Your task to perform on an android device: Turn off the flashlight Image 0: 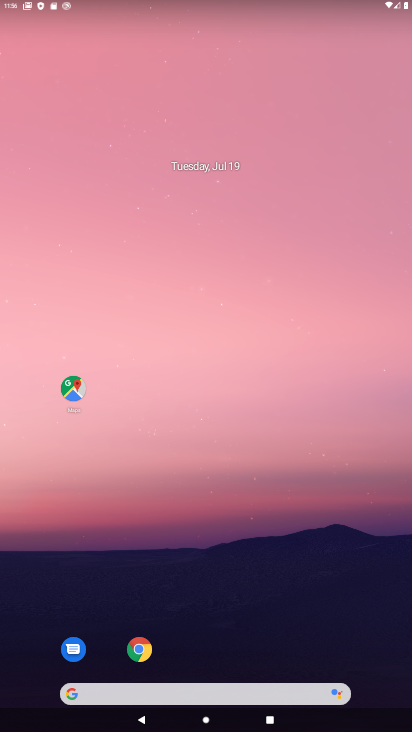
Step 0: drag from (245, 626) to (354, 23)
Your task to perform on an android device: Turn off the flashlight Image 1: 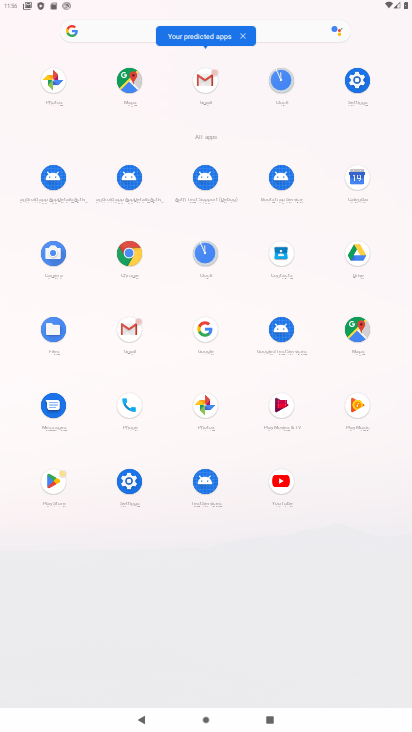
Step 1: click (355, 99)
Your task to perform on an android device: Turn off the flashlight Image 2: 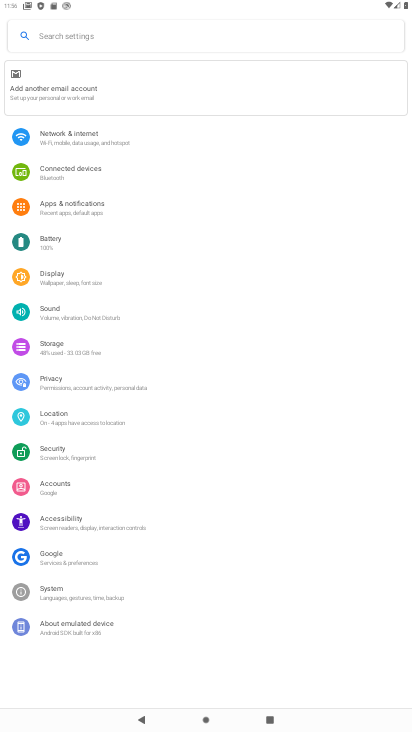
Step 2: click (70, 276)
Your task to perform on an android device: Turn off the flashlight Image 3: 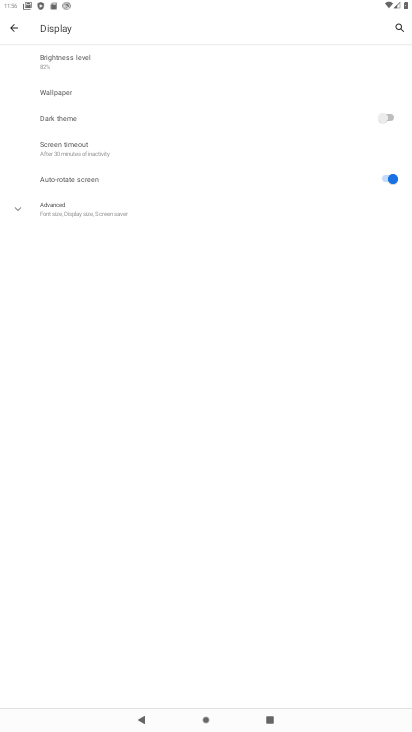
Step 3: click (86, 210)
Your task to perform on an android device: Turn off the flashlight Image 4: 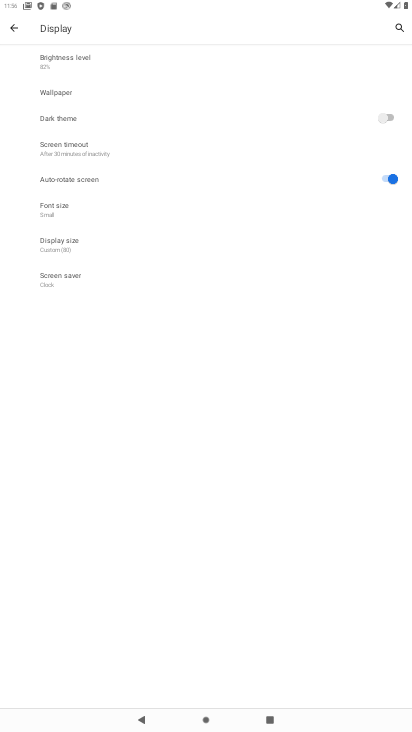
Step 4: click (83, 244)
Your task to perform on an android device: Turn off the flashlight Image 5: 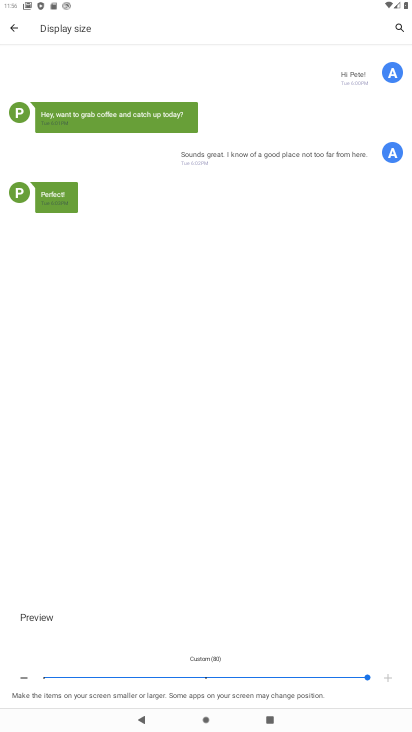
Step 5: click (204, 673)
Your task to perform on an android device: Turn off the flashlight Image 6: 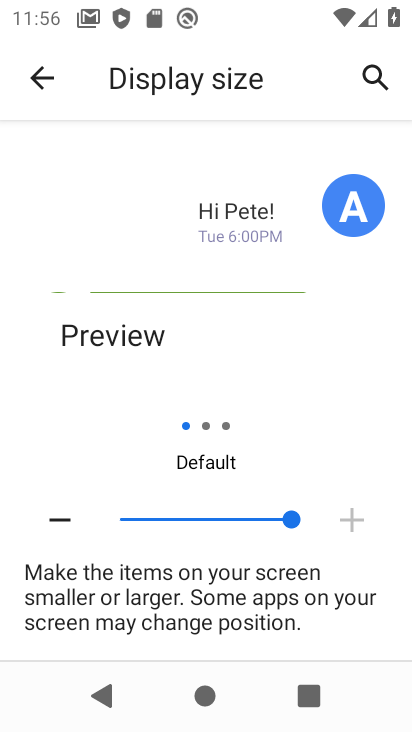
Step 6: click (34, 61)
Your task to perform on an android device: Turn off the flashlight Image 7: 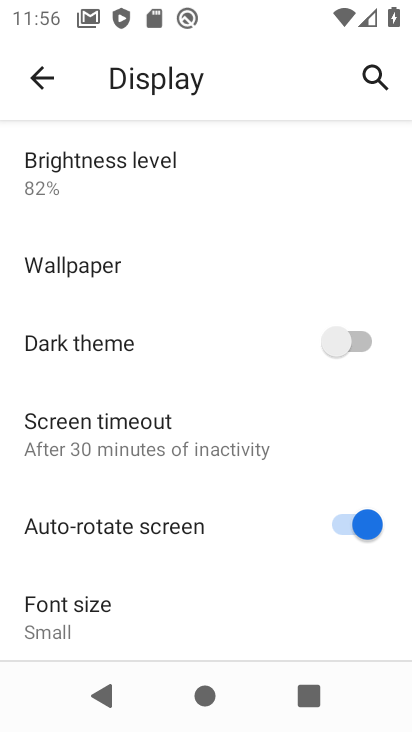
Step 7: click (32, 92)
Your task to perform on an android device: Turn off the flashlight Image 8: 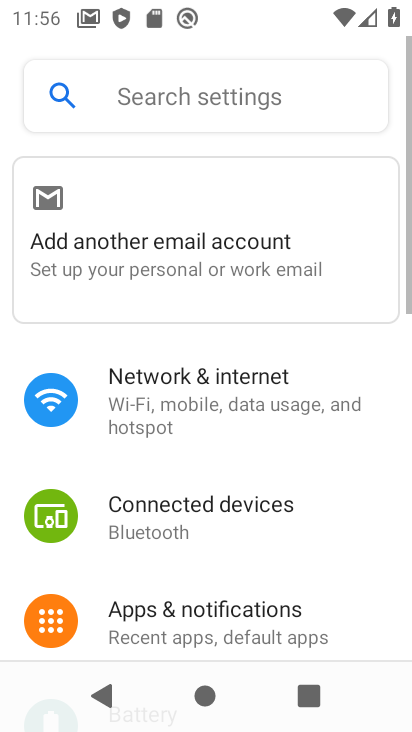
Step 8: click (201, 95)
Your task to perform on an android device: Turn off the flashlight Image 9: 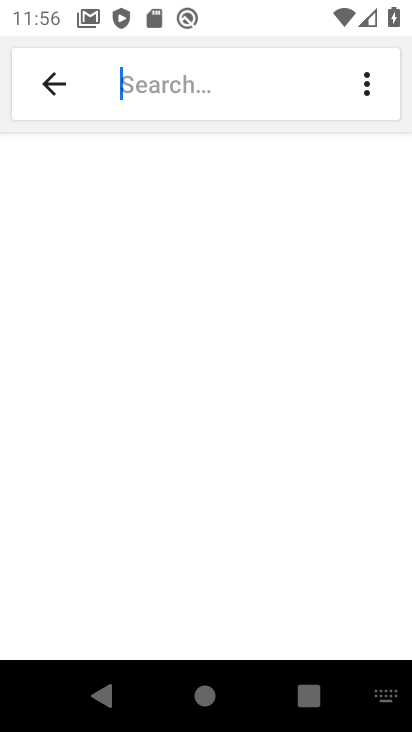
Step 9: type "flashlight"
Your task to perform on an android device: Turn off the flashlight Image 10: 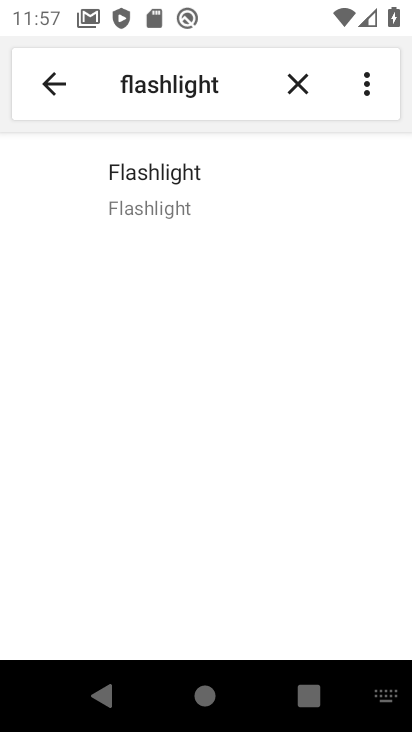
Step 10: click (151, 189)
Your task to perform on an android device: Turn off the flashlight Image 11: 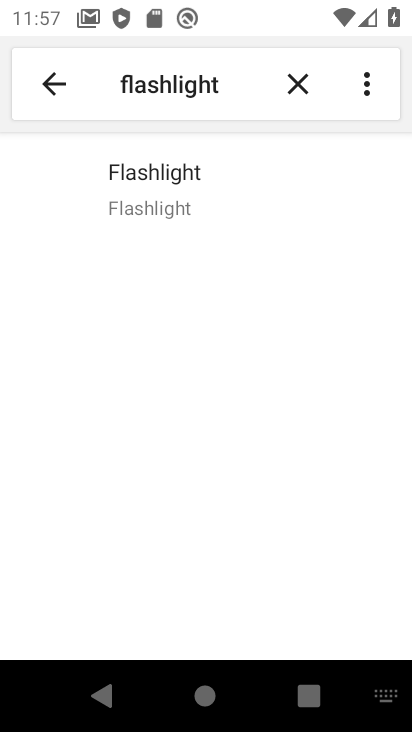
Step 11: task complete